Your task to perform on an android device: Search for the best rated circular saw on Lowes.com Image 0: 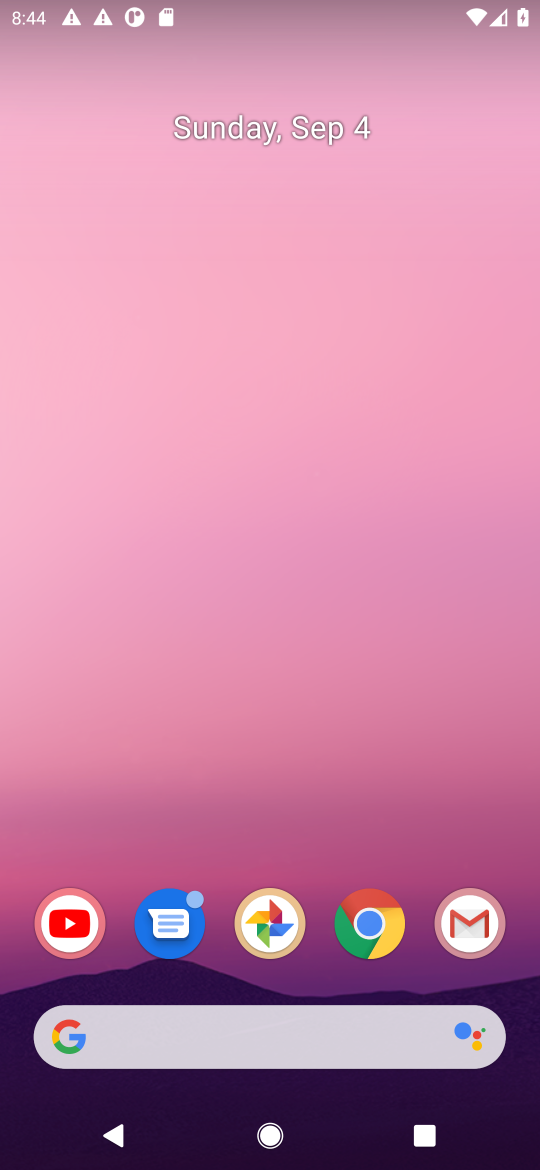
Step 0: click (355, 915)
Your task to perform on an android device: Search for the best rated circular saw on Lowes.com Image 1: 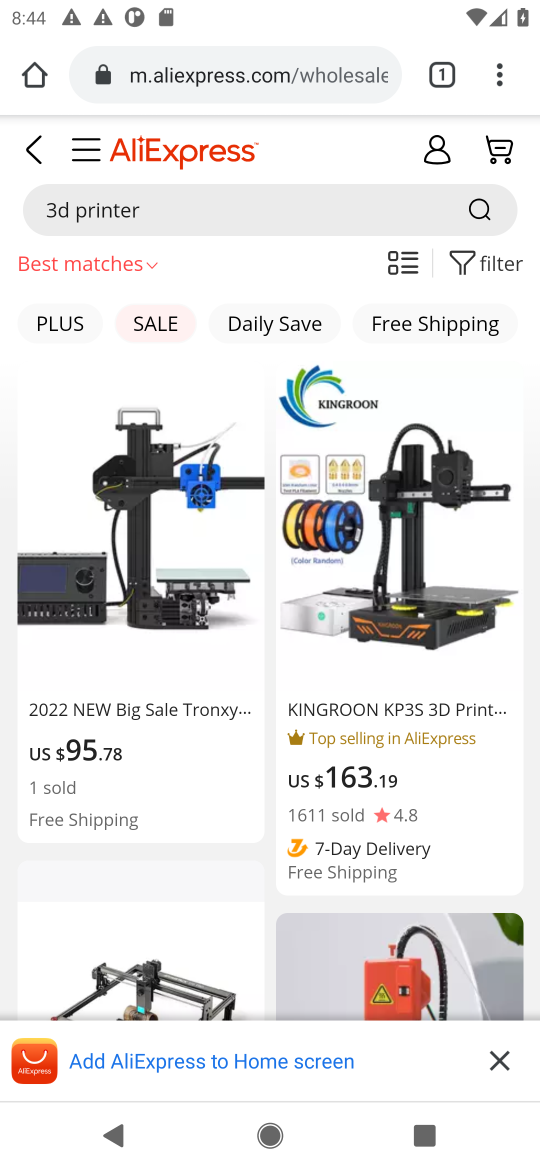
Step 1: click (363, 67)
Your task to perform on an android device: Search for the best rated circular saw on Lowes.com Image 2: 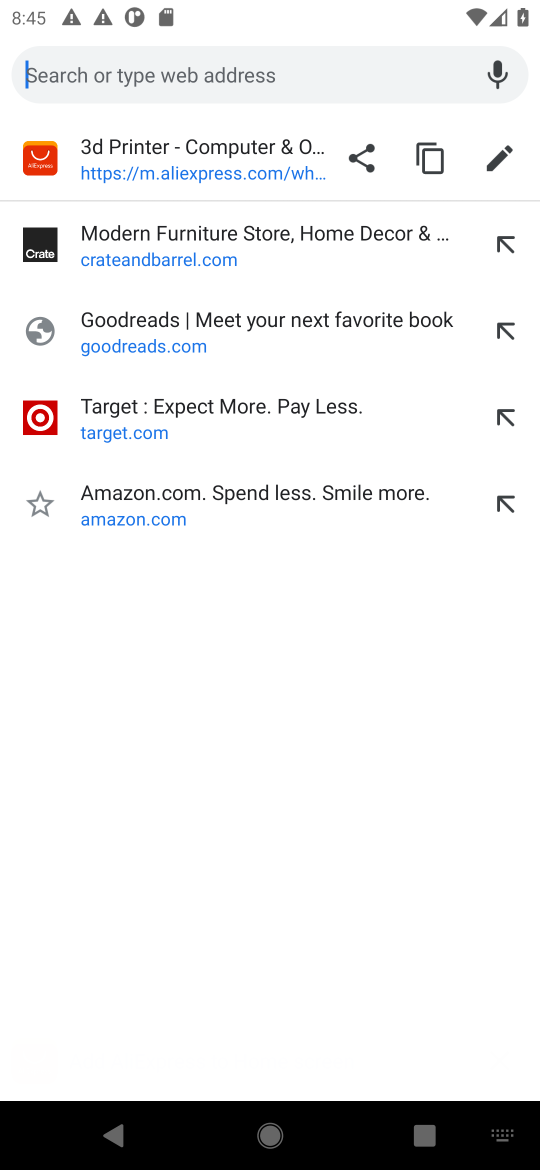
Step 2: type "lowes.com"
Your task to perform on an android device: Search for the best rated circular saw on Lowes.com Image 3: 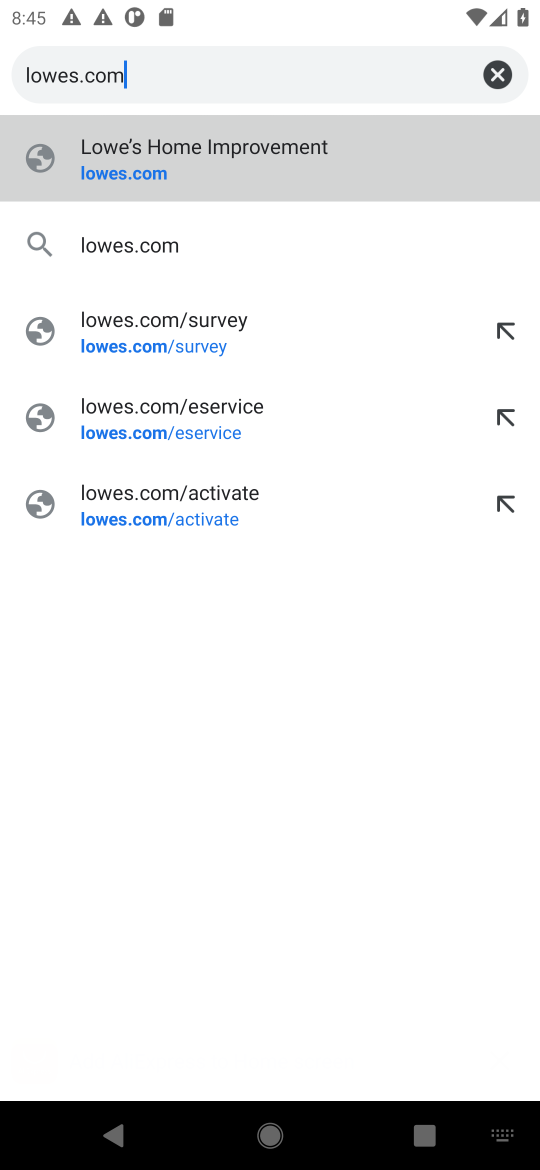
Step 3: click (180, 161)
Your task to perform on an android device: Search for the best rated circular saw on Lowes.com Image 4: 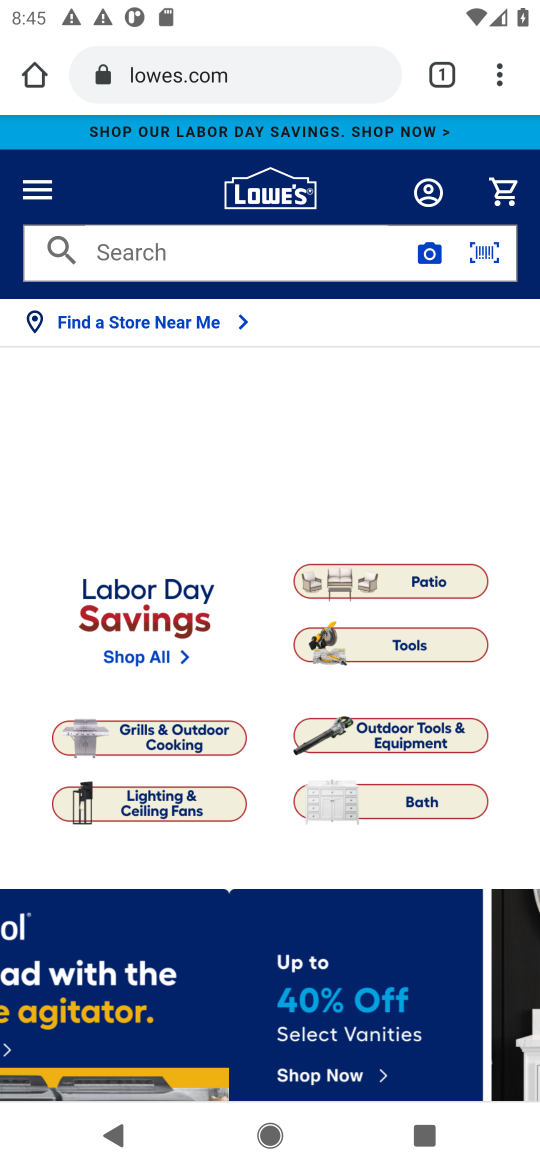
Step 4: click (172, 248)
Your task to perform on an android device: Search for the best rated circular saw on Lowes.com Image 5: 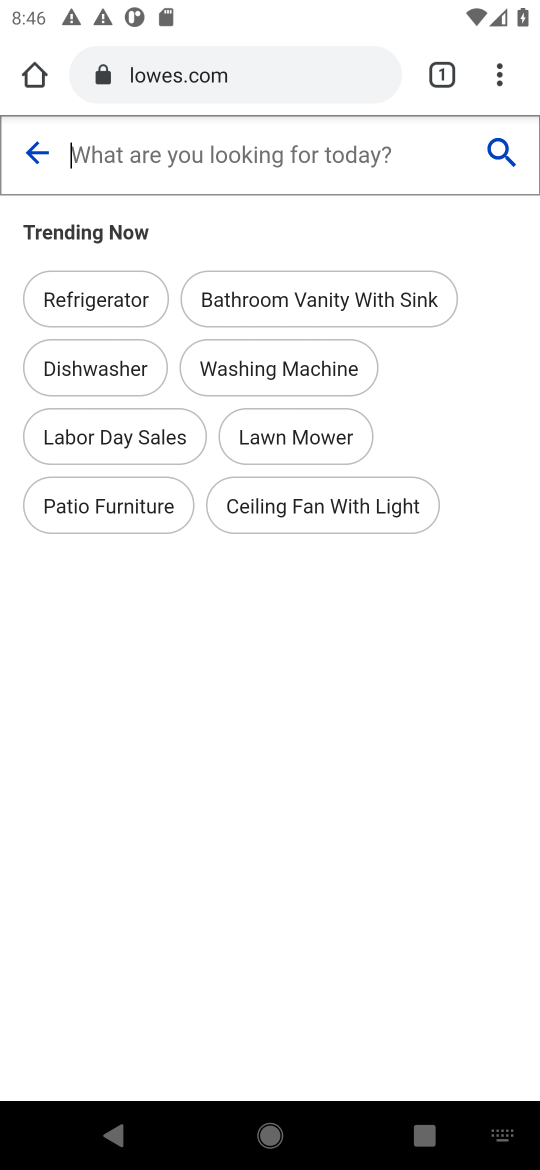
Step 5: type "best rated circular saw"
Your task to perform on an android device: Search for the best rated circular saw on Lowes.com Image 6: 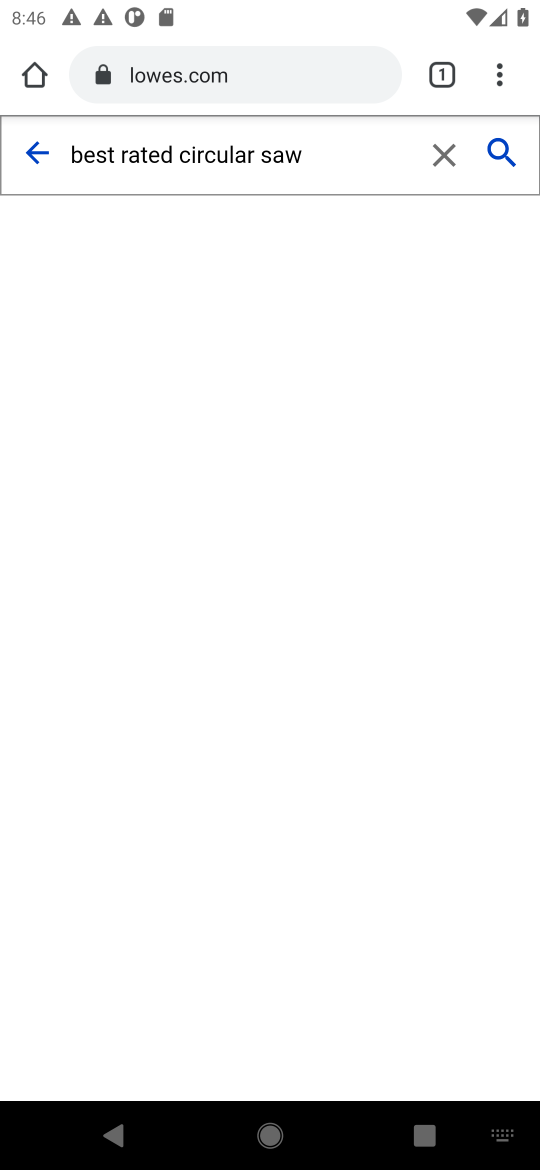
Step 6: click (510, 155)
Your task to perform on an android device: Search for the best rated circular saw on Lowes.com Image 7: 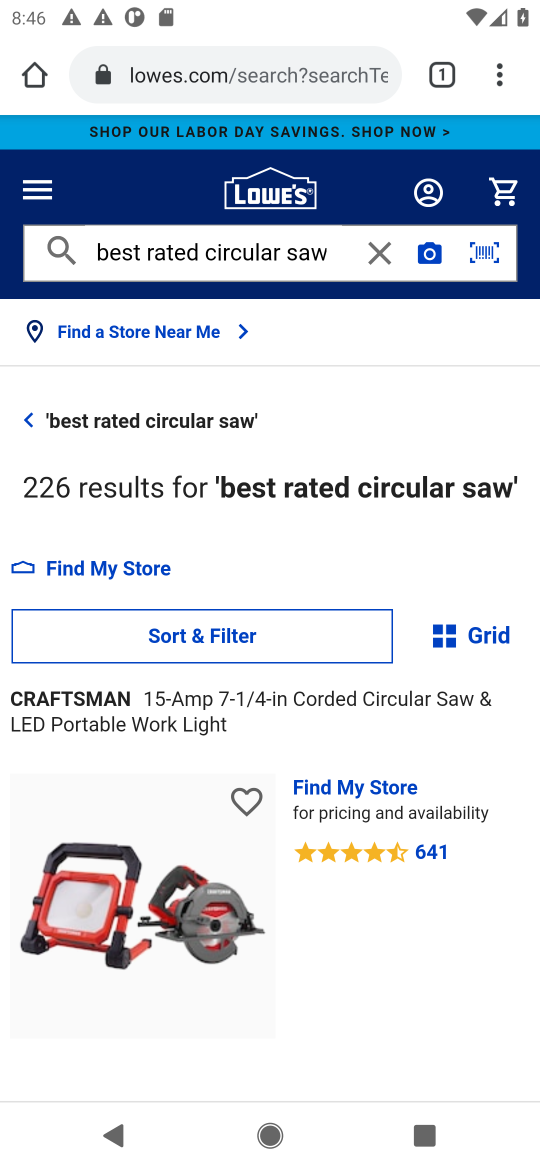
Step 7: task complete